Your task to perform on an android device: turn off airplane mode Image 0: 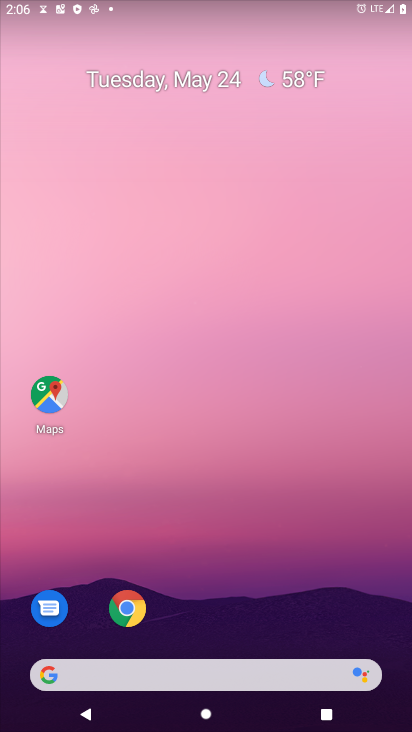
Step 0: drag from (300, 627) to (162, 79)
Your task to perform on an android device: turn off airplane mode Image 1: 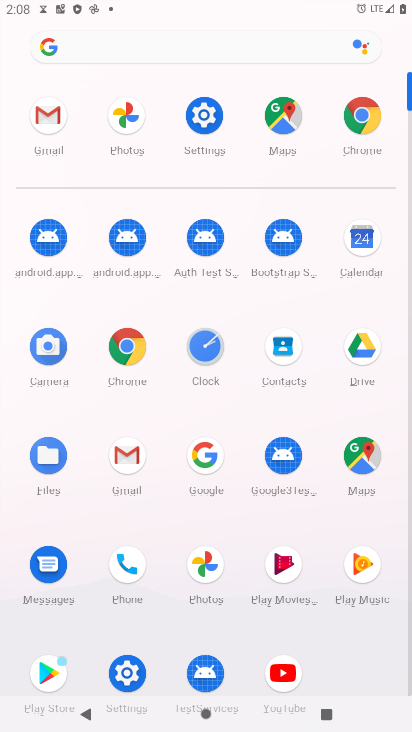
Step 1: click (216, 124)
Your task to perform on an android device: turn off airplane mode Image 2: 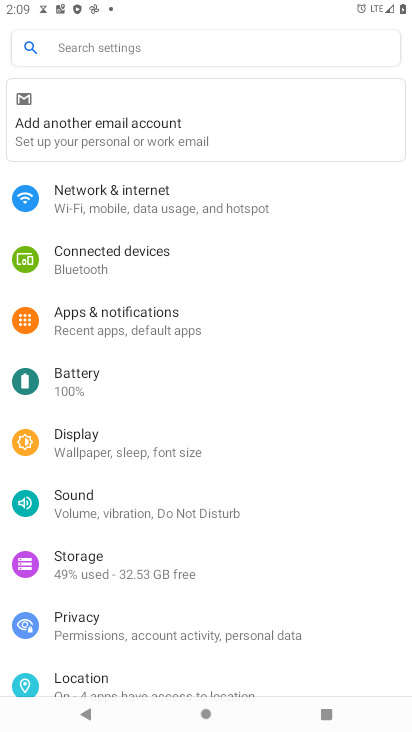
Step 2: click (202, 206)
Your task to perform on an android device: turn off airplane mode Image 3: 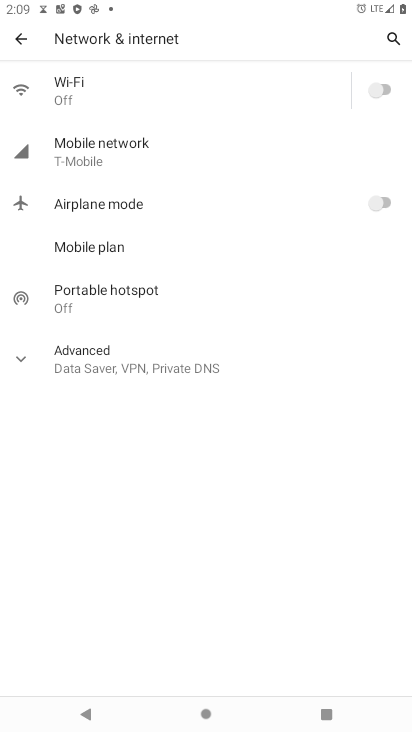
Step 3: click (380, 209)
Your task to perform on an android device: turn off airplane mode Image 4: 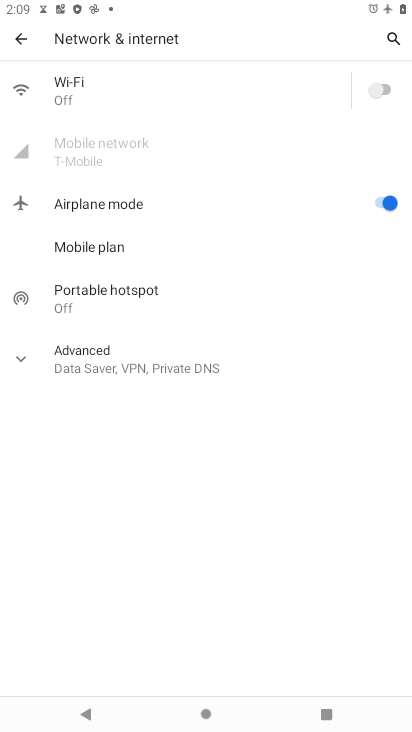
Step 4: click (380, 209)
Your task to perform on an android device: turn off airplane mode Image 5: 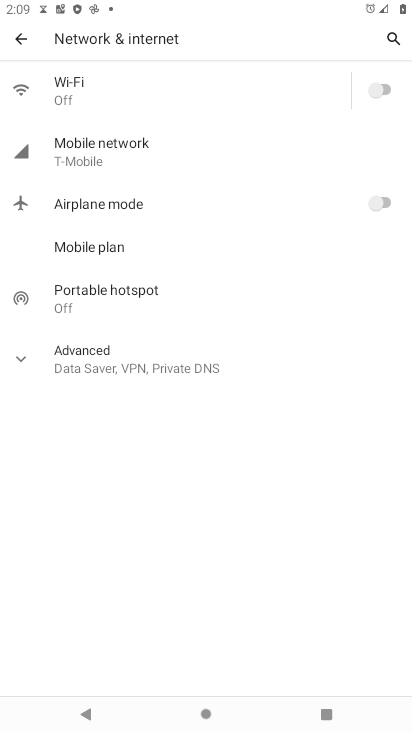
Step 5: task complete